Your task to perform on an android device: Open calendar and show me the second week of next month Image 0: 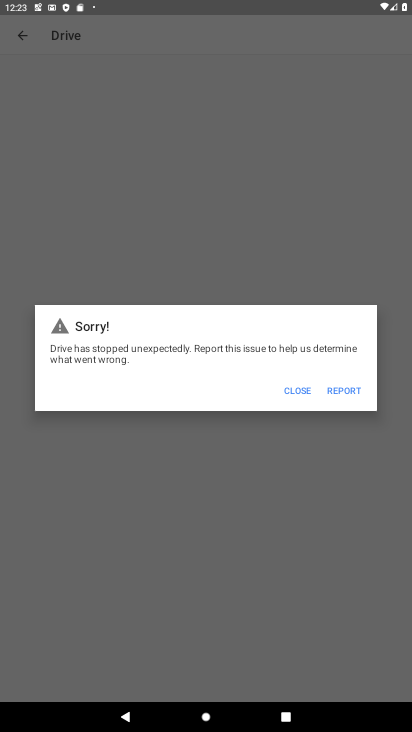
Step 0: press home button
Your task to perform on an android device: Open calendar and show me the second week of next month Image 1: 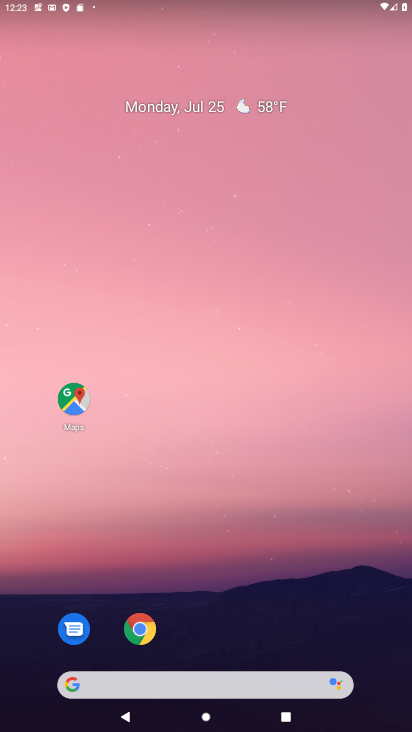
Step 1: drag from (196, 654) to (365, 84)
Your task to perform on an android device: Open calendar and show me the second week of next month Image 2: 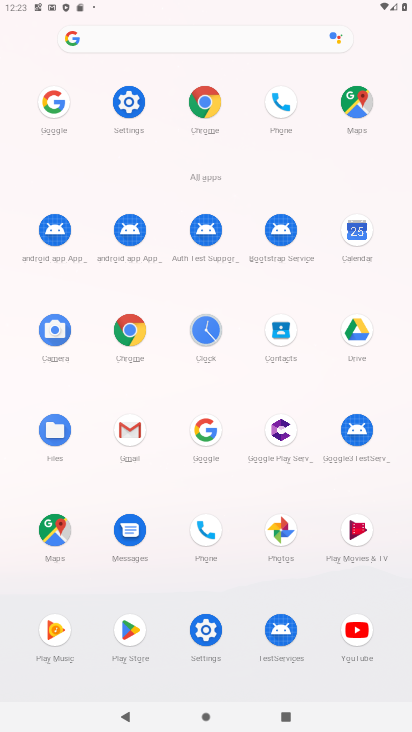
Step 2: click (349, 242)
Your task to perform on an android device: Open calendar and show me the second week of next month Image 3: 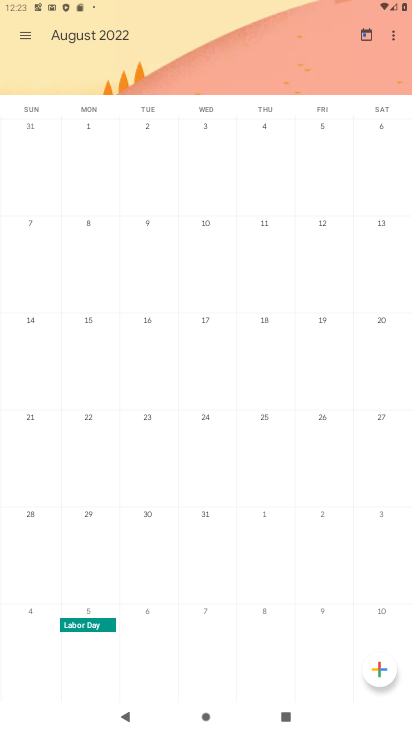
Step 3: click (358, 38)
Your task to perform on an android device: Open calendar and show me the second week of next month Image 4: 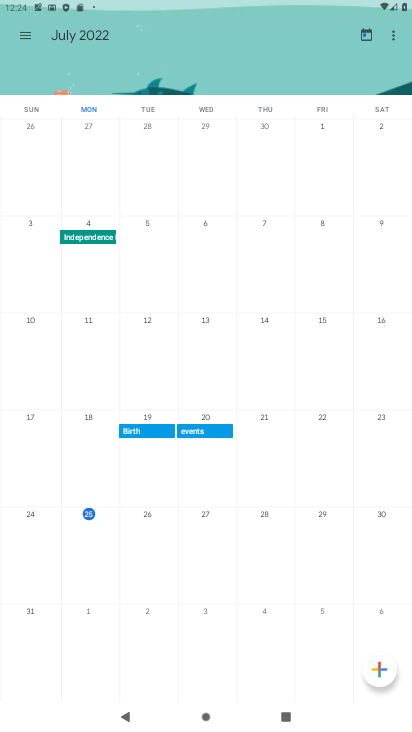
Step 4: task complete